Your task to perform on an android device: Open Wikipedia Image 0: 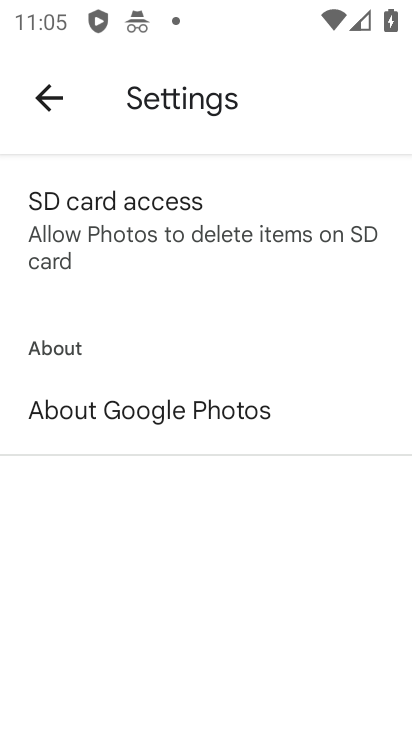
Step 0: press home button
Your task to perform on an android device: Open Wikipedia Image 1: 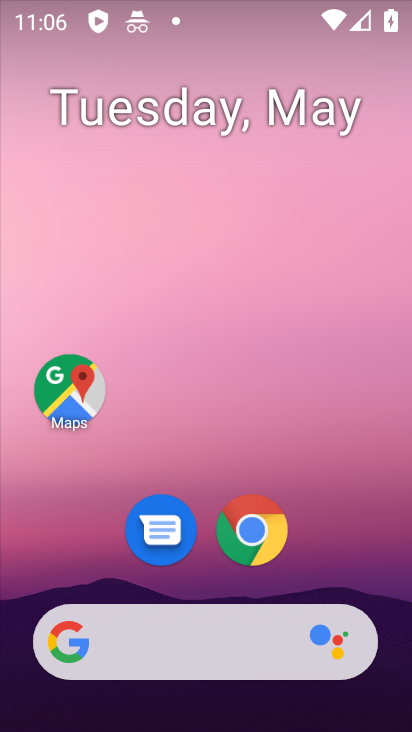
Step 1: click (259, 538)
Your task to perform on an android device: Open Wikipedia Image 2: 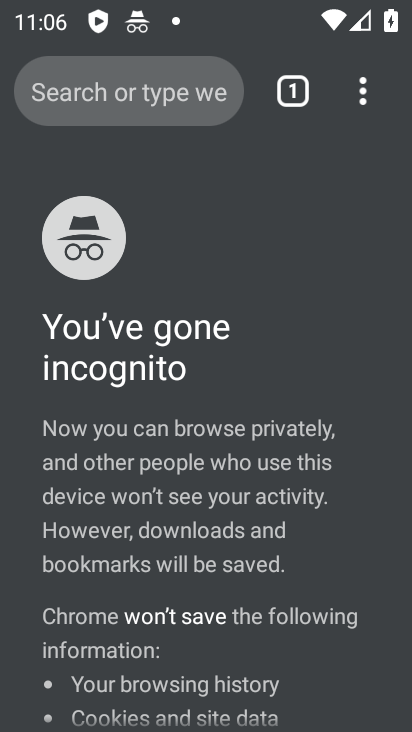
Step 2: click (171, 101)
Your task to perform on an android device: Open Wikipedia Image 3: 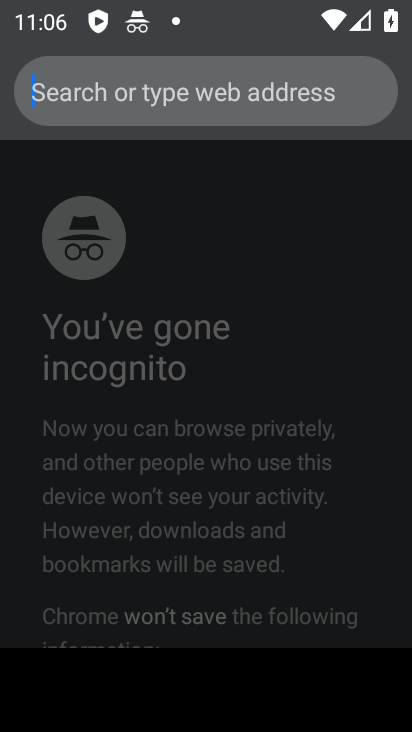
Step 3: type "wikipedia"
Your task to perform on an android device: Open Wikipedia Image 4: 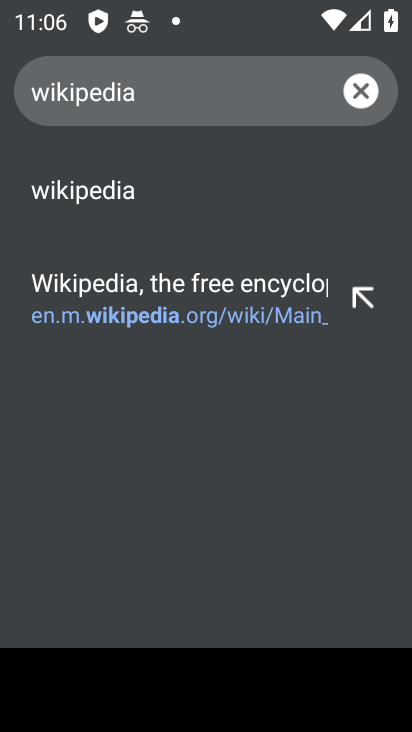
Step 4: click (114, 313)
Your task to perform on an android device: Open Wikipedia Image 5: 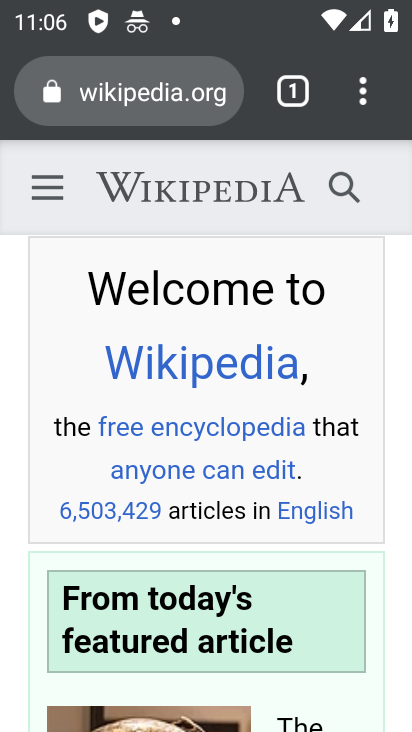
Step 5: task complete